Your task to perform on an android device: turn off wifi Image 0: 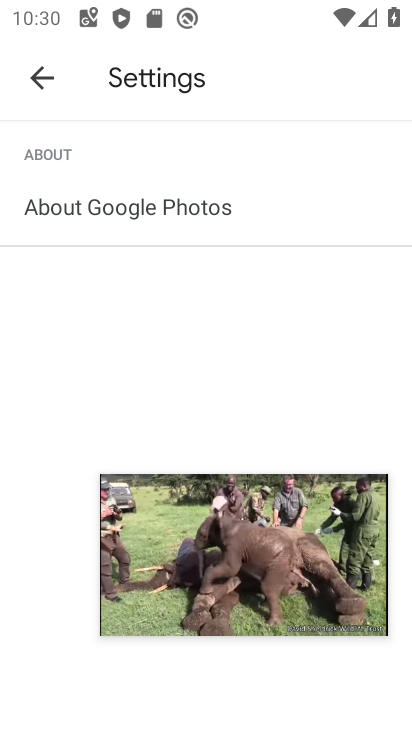
Step 0: press home button
Your task to perform on an android device: turn off wifi Image 1: 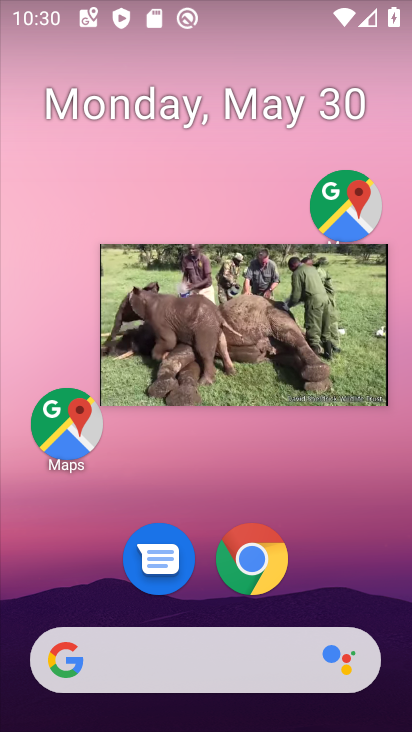
Step 1: click (374, 250)
Your task to perform on an android device: turn off wifi Image 2: 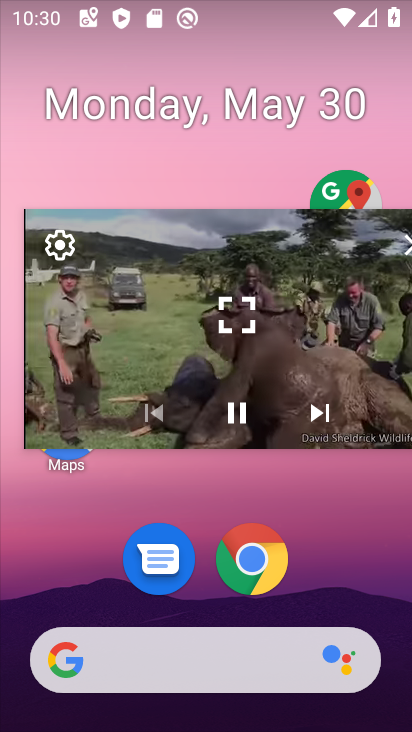
Step 2: click (402, 240)
Your task to perform on an android device: turn off wifi Image 3: 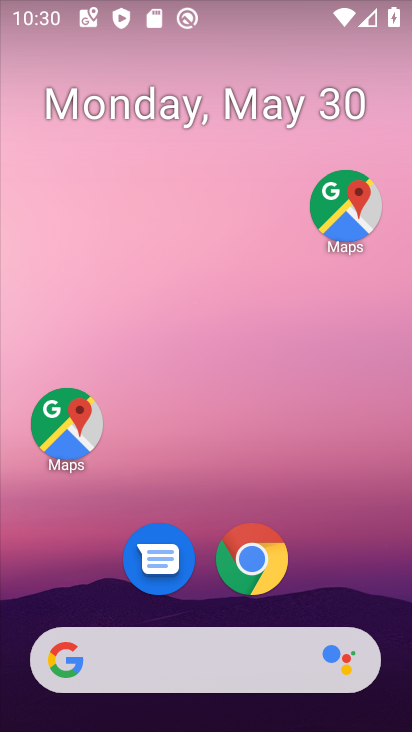
Step 3: drag from (304, 179) to (300, 116)
Your task to perform on an android device: turn off wifi Image 4: 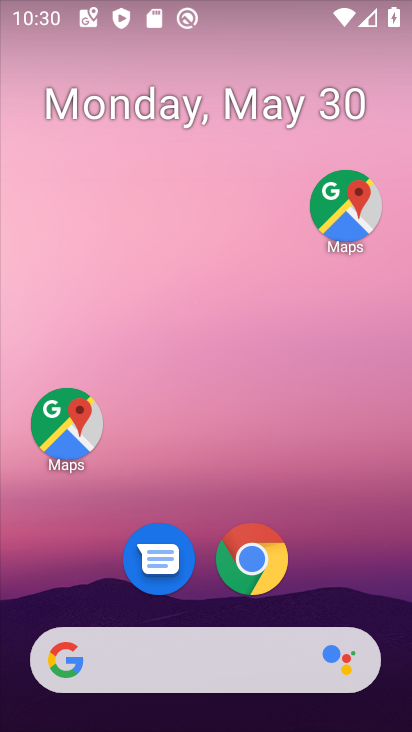
Step 4: drag from (330, 490) to (240, 4)
Your task to perform on an android device: turn off wifi Image 5: 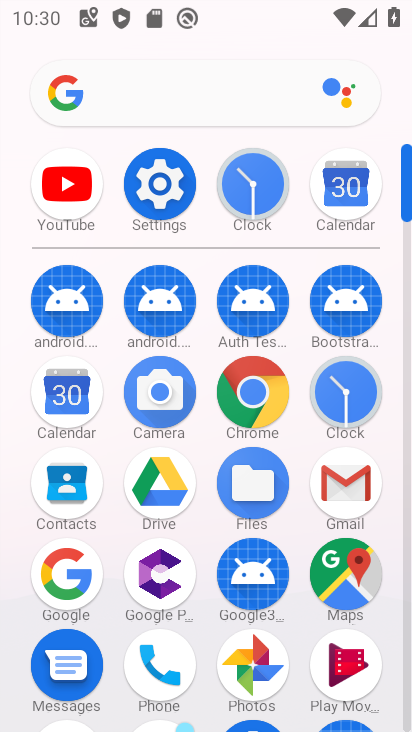
Step 5: click (150, 166)
Your task to perform on an android device: turn off wifi Image 6: 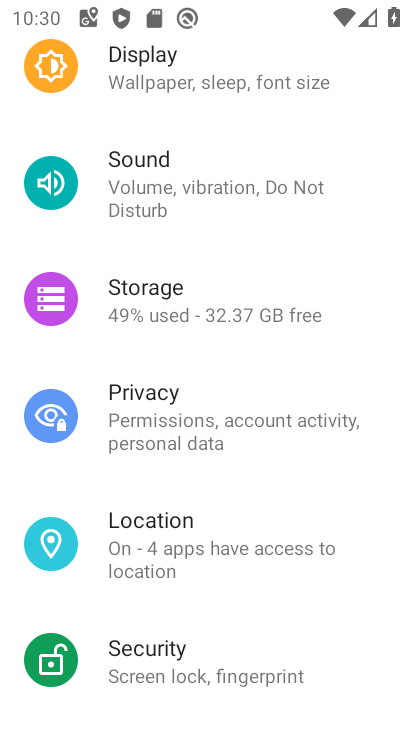
Step 6: drag from (241, 162) to (278, 656)
Your task to perform on an android device: turn off wifi Image 7: 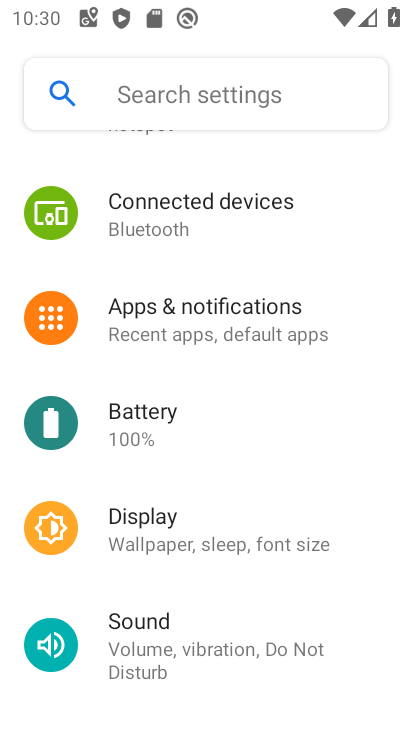
Step 7: drag from (222, 213) to (247, 684)
Your task to perform on an android device: turn off wifi Image 8: 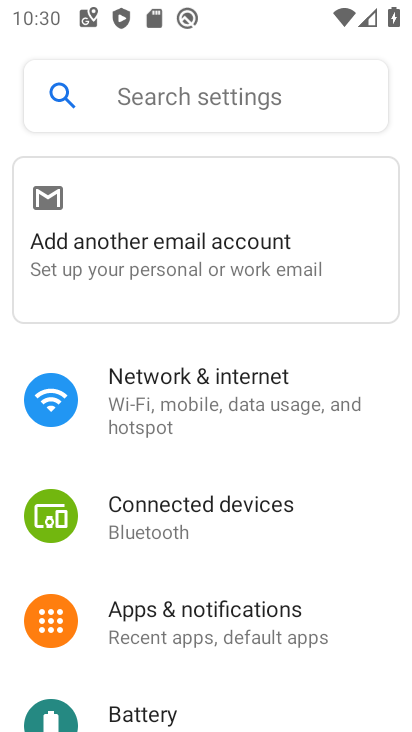
Step 8: click (175, 384)
Your task to perform on an android device: turn off wifi Image 9: 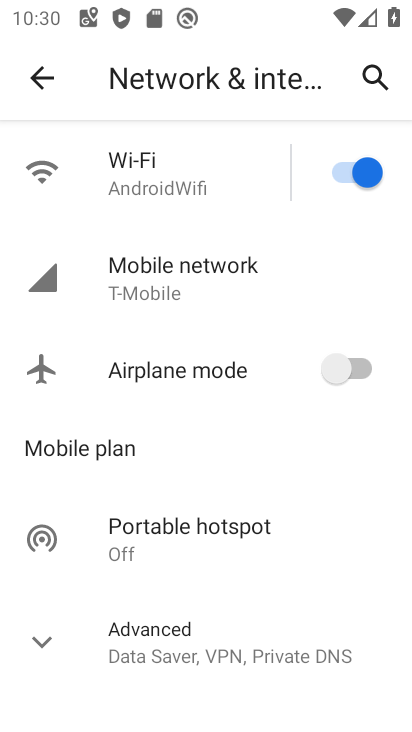
Step 9: click (369, 192)
Your task to perform on an android device: turn off wifi Image 10: 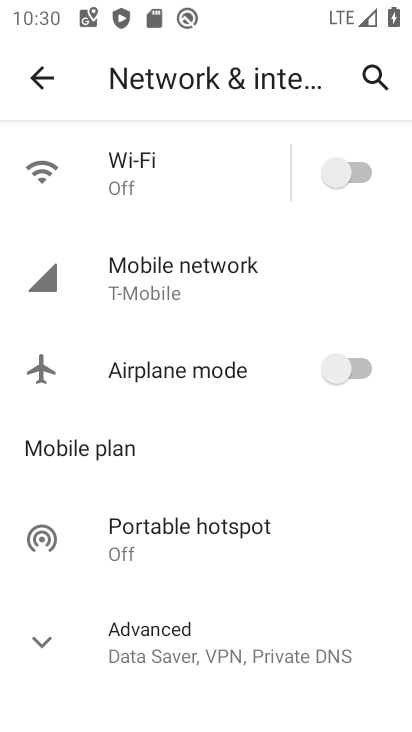
Step 10: task complete